Your task to perform on an android device: toggle javascript in the chrome app Image 0: 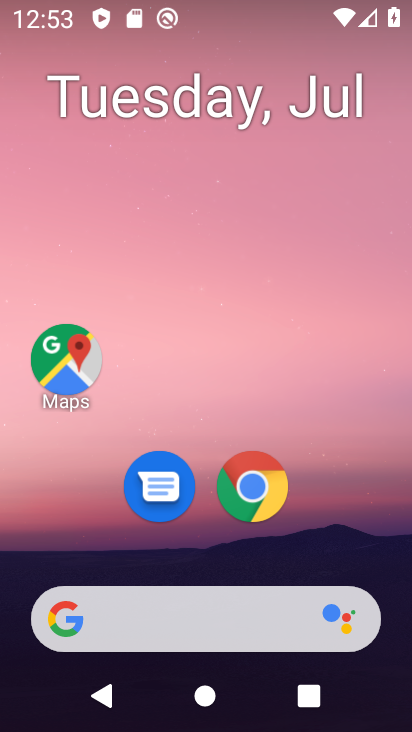
Step 0: drag from (335, 546) to (366, 159)
Your task to perform on an android device: toggle javascript in the chrome app Image 1: 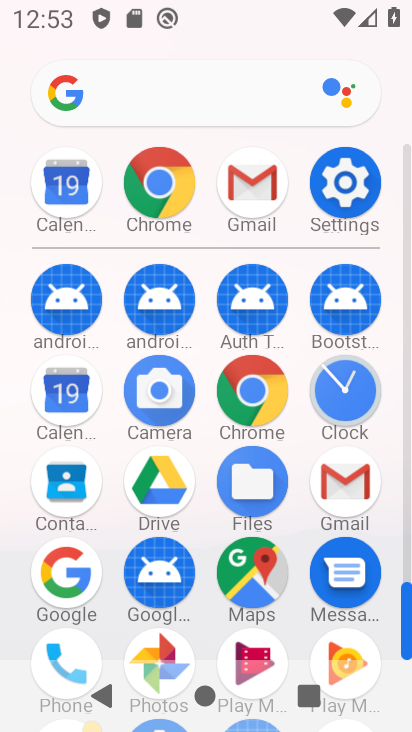
Step 1: click (262, 400)
Your task to perform on an android device: toggle javascript in the chrome app Image 2: 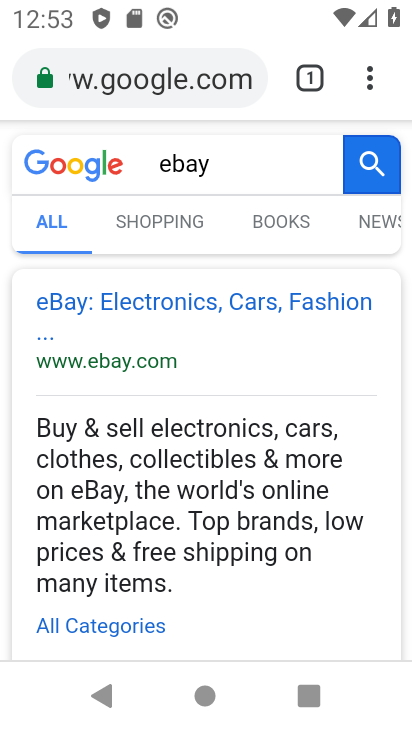
Step 2: click (373, 81)
Your task to perform on an android device: toggle javascript in the chrome app Image 3: 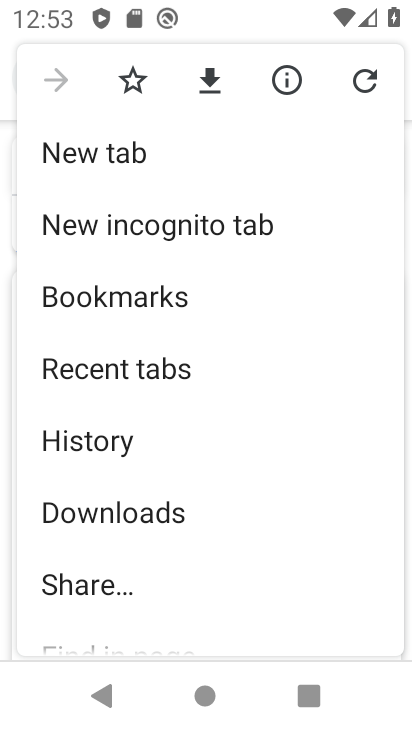
Step 3: drag from (301, 457) to (316, 334)
Your task to perform on an android device: toggle javascript in the chrome app Image 4: 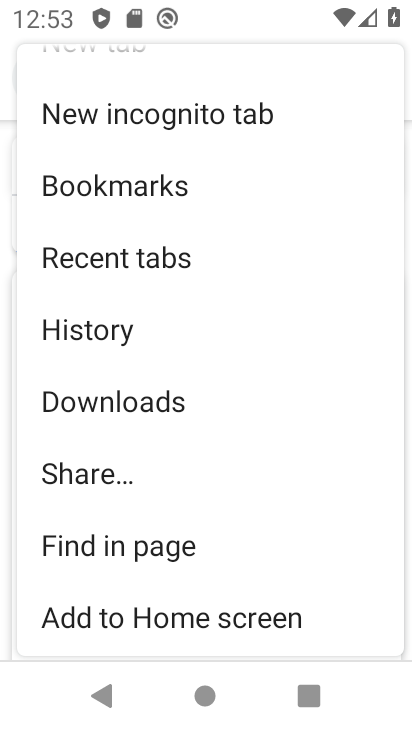
Step 4: drag from (295, 467) to (298, 318)
Your task to perform on an android device: toggle javascript in the chrome app Image 5: 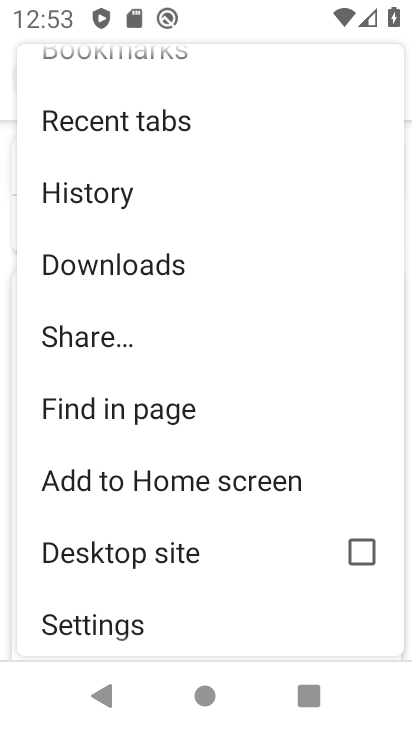
Step 5: click (144, 623)
Your task to perform on an android device: toggle javascript in the chrome app Image 6: 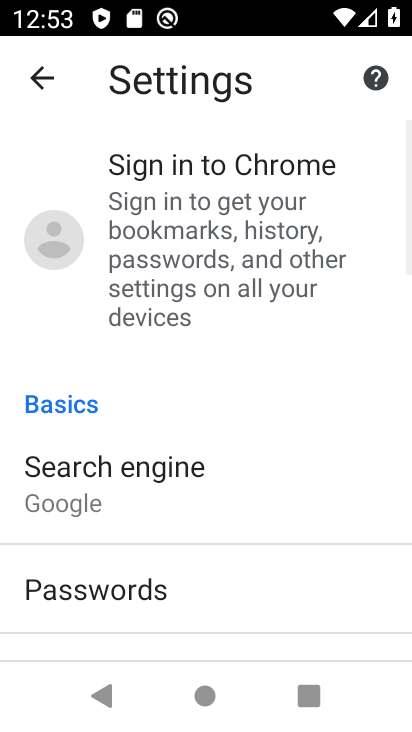
Step 6: drag from (286, 597) to (307, 362)
Your task to perform on an android device: toggle javascript in the chrome app Image 7: 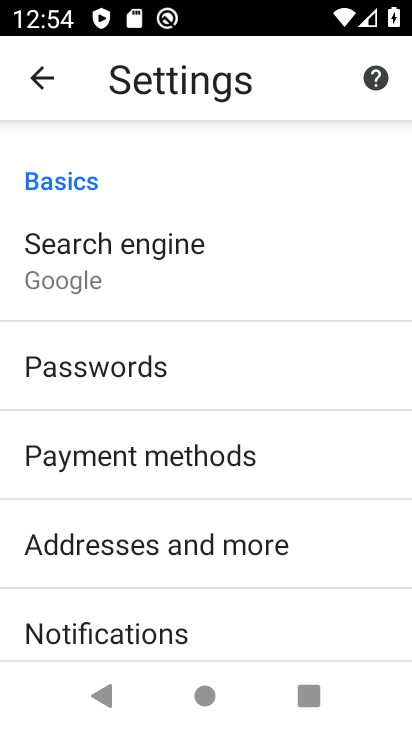
Step 7: drag from (337, 598) to (336, 421)
Your task to perform on an android device: toggle javascript in the chrome app Image 8: 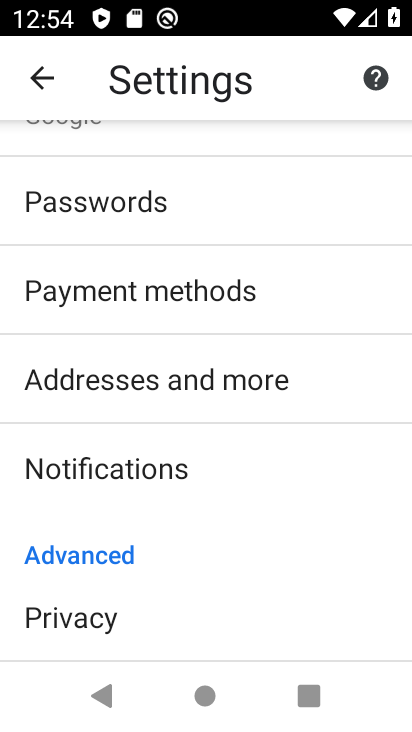
Step 8: drag from (297, 570) to (289, 429)
Your task to perform on an android device: toggle javascript in the chrome app Image 9: 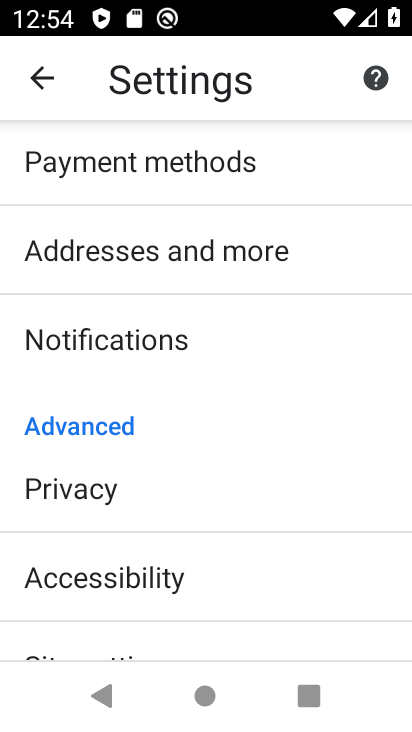
Step 9: drag from (265, 584) to (286, 437)
Your task to perform on an android device: toggle javascript in the chrome app Image 10: 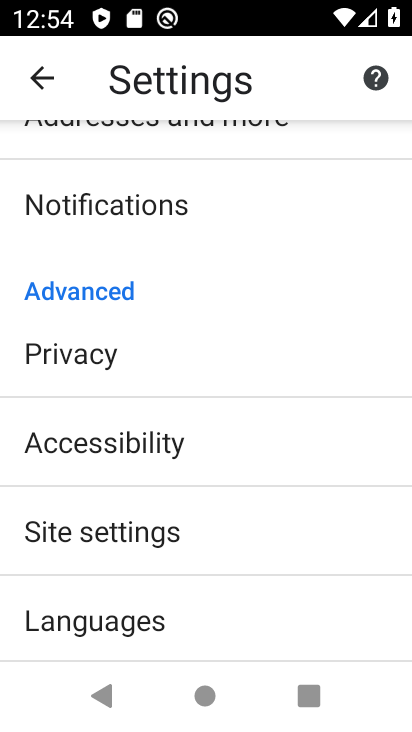
Step 10: click (276, 537)
Your task to perform on an android device: toggle javascript in the chrome app Image 11: 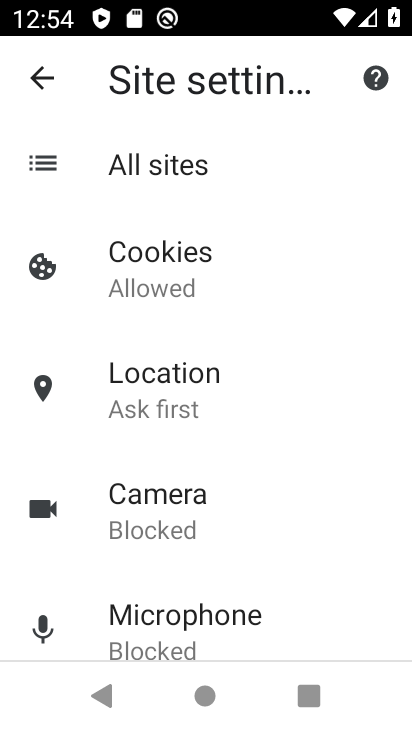
Step 11: drag from (297, 563) to (310, 405)
Your task to perform on an android device: toggle javascript in the chrome app Image 12: 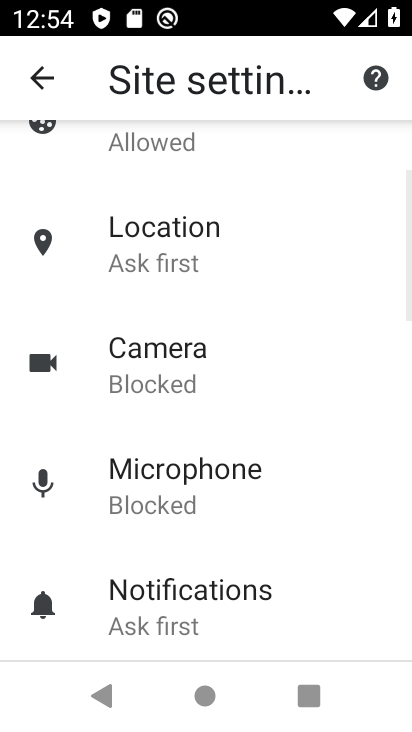
Step 12: drag from (331, 553) to (336, 405)
Your task to perform on an android device: toggle javascript in the chrome app Image 13: 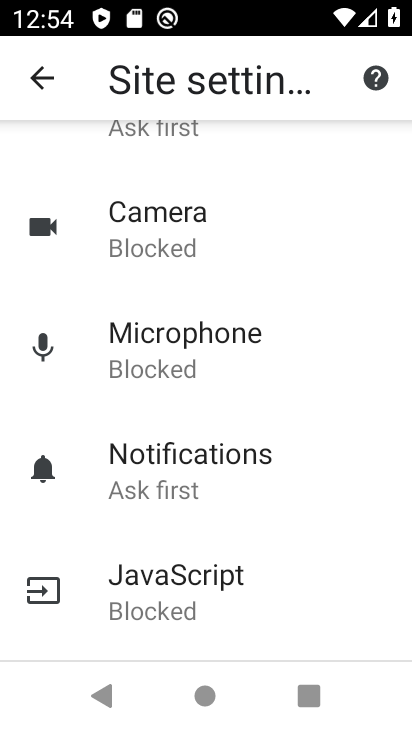
Step 13: drag from (342, 562) to (346, 418)
Your task to perform on an android device: toggle javascript in the chrome app Image 14: 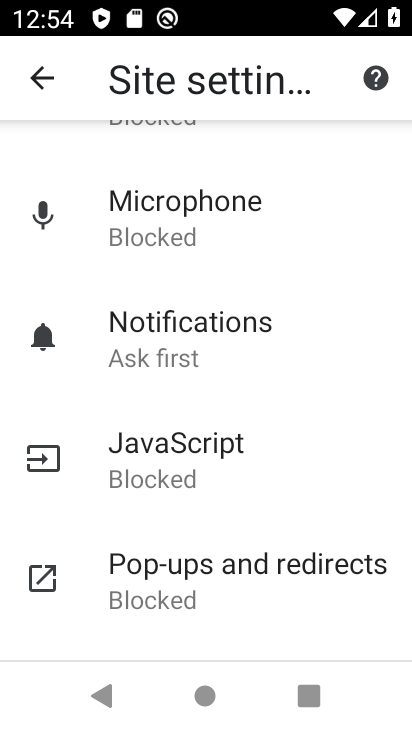
Step 14: click (237, 470)
Your task to perform on an android device: toggle javascript in the chrome app Image 15: 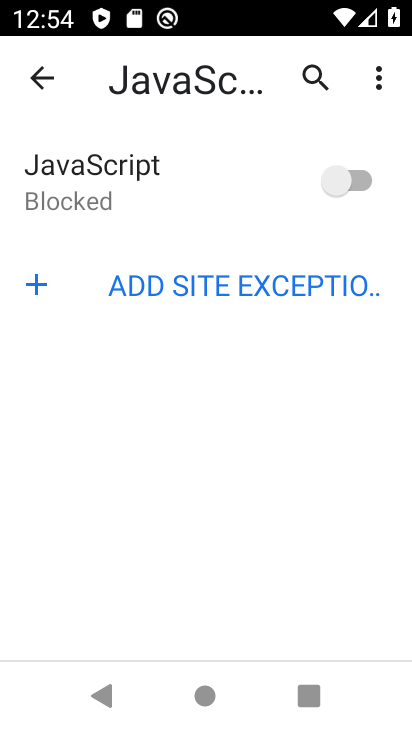
Step 15: click (356, 185)
Your task to perform on an android device: toggle javascript in the chrome app Image 16: 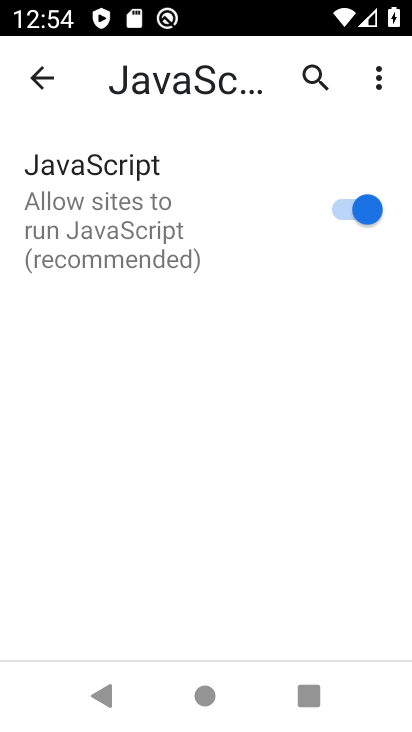
Step 16: task complete